Your task to perform on an android device: What is the news today? Image 0: 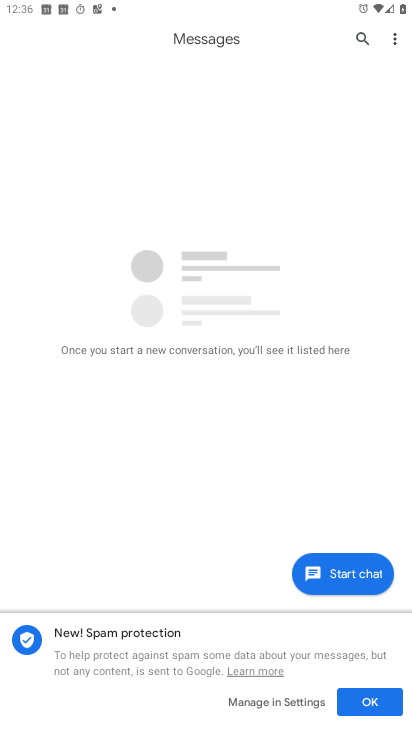
Step 0: press home button
Your task to perform on an android device: What is the news today? Image 1: 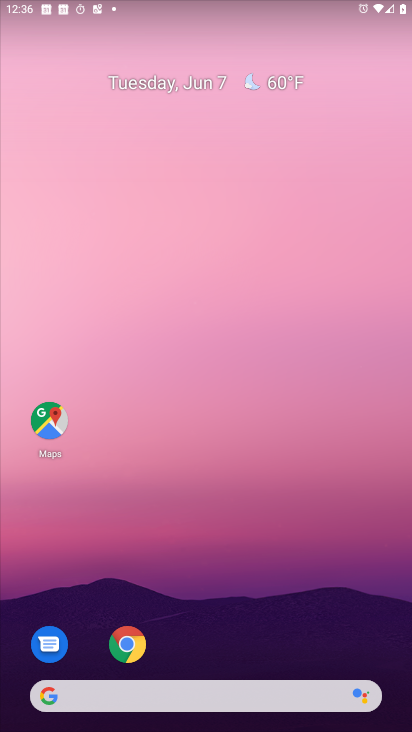
Step 1: click (180, 699)
Your task to perform on an android device: What is the news today? Image 2: 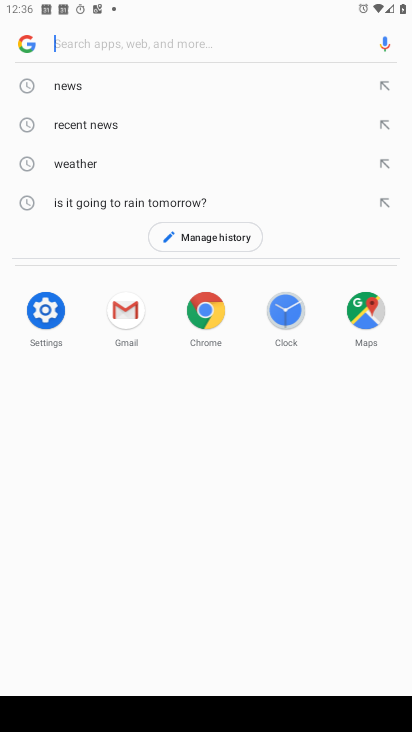
Step 2: click (84, 90)
Your task to perform on an android device: What is the news today? Image 3: 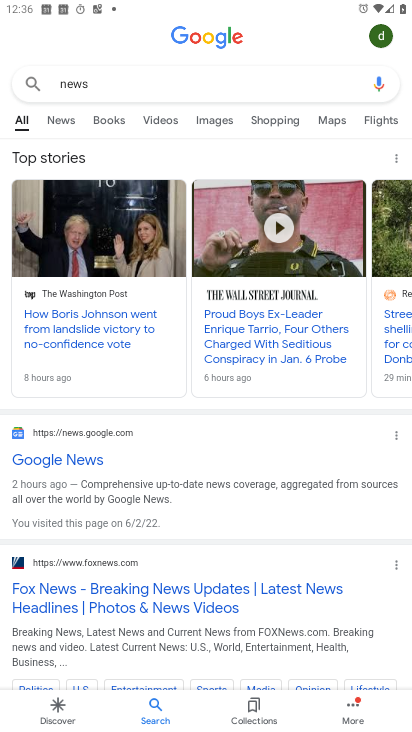
Step 3: click (57, 330)
Your task to perform on an android device: What is the news today? Image 4: 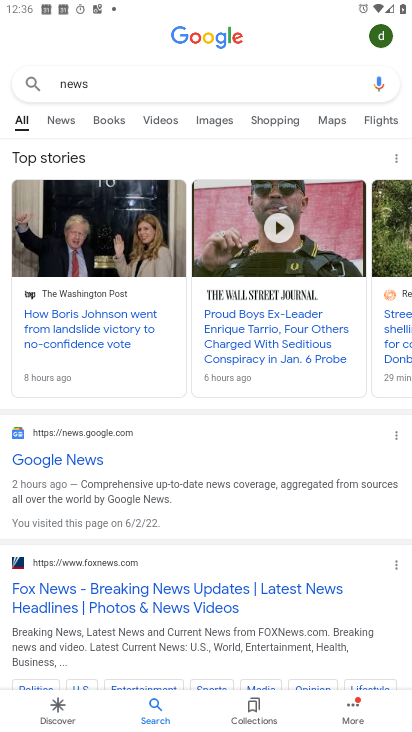
Step 4: click (97, 243)
Your task to perform on an android device: What is the news today? Image 5: 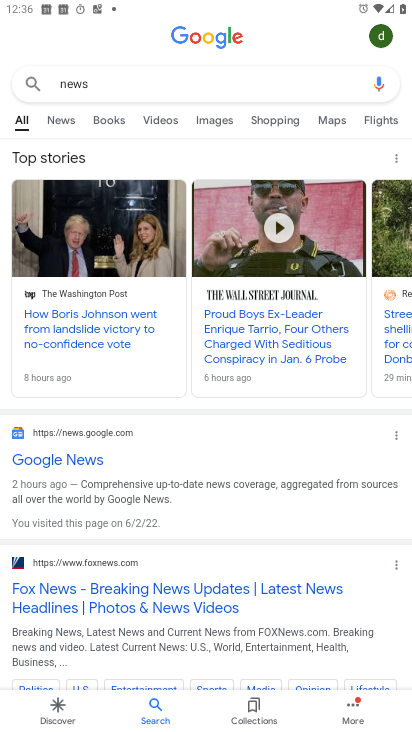
Step 5: task complete